Your task to perform on an android device: Toggle the flashlight Image 0: 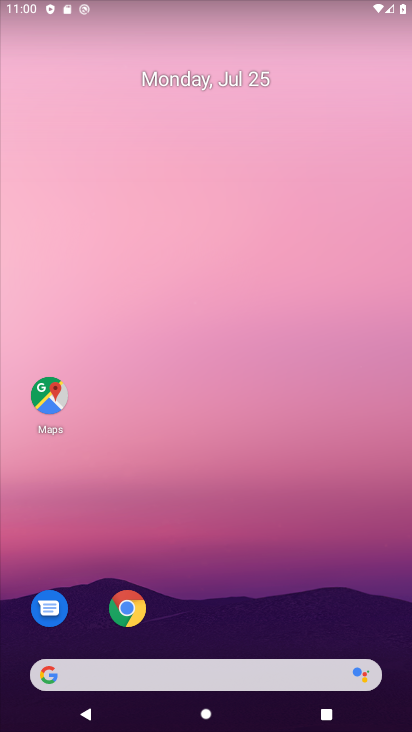
Step 0: drag from (210, 668) to (184, 118)
Your task to perform on an android device: Toggle the flashlight Image 1: 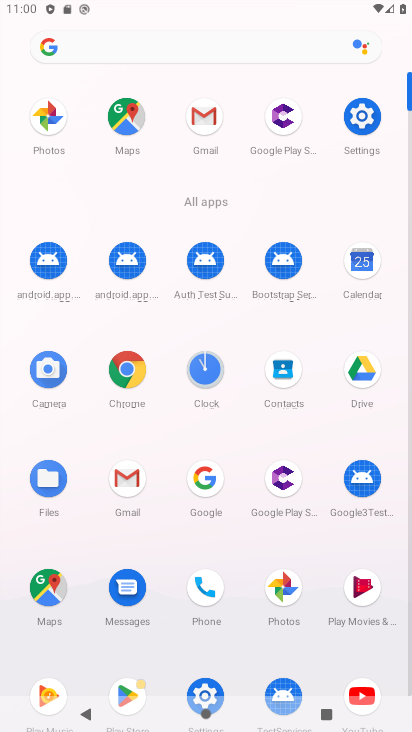
Step 1: task complete